Your task to perform on an android device: Show me popular videos on Youtube Image 0: 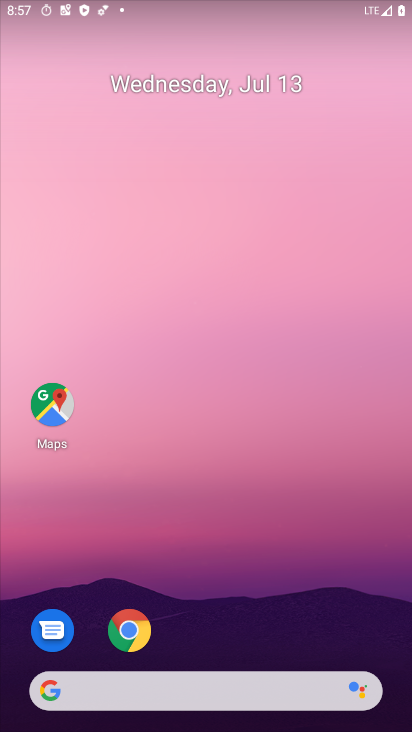
Step 0: drag from (313, 594) to (314, 111)
Your task to perform on an android device: Show me popular videos on Youtube Image 1: 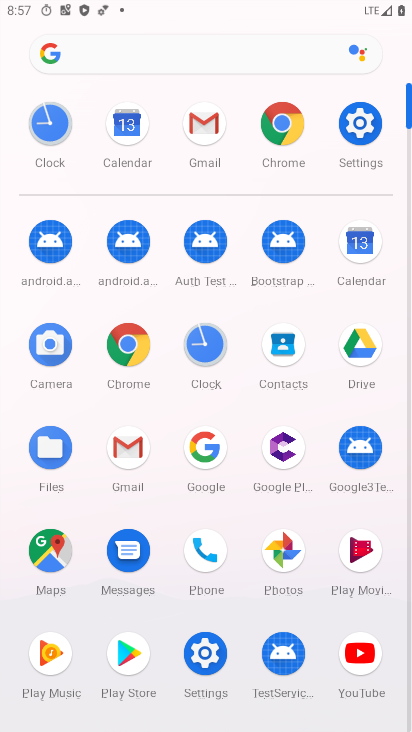
Step 1: click (354, 667)
Your task to perform on an android device: Show me popular videos on Youtube Image 2: 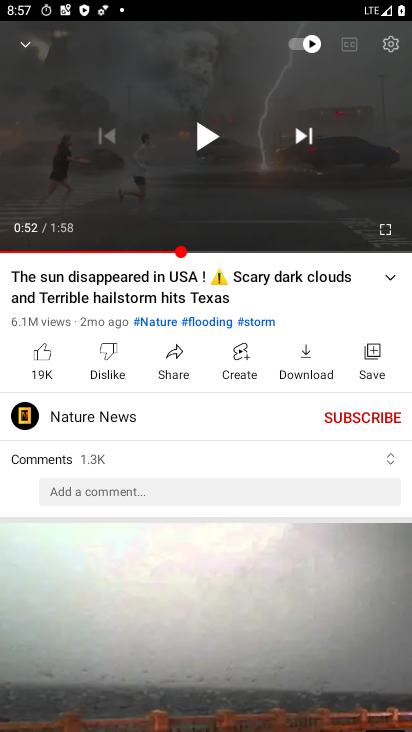
Step 2: task complete